Your task to perform on an android device: manage bookmarks in the chrome app Image 0: 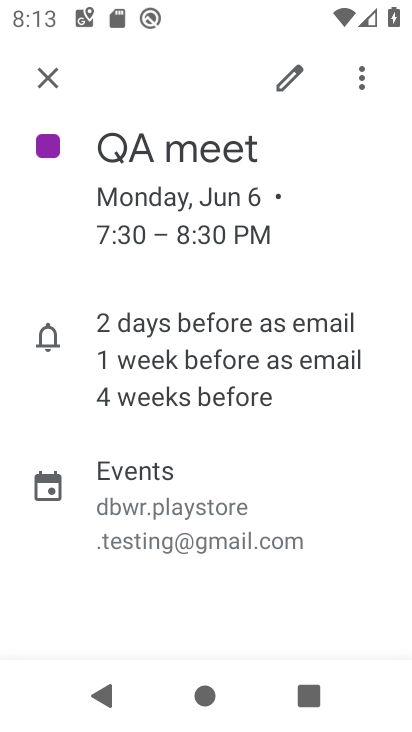
Step 0: press home button
Your task to perform on an android device: manage bookmarks in the chrome app Image 1: 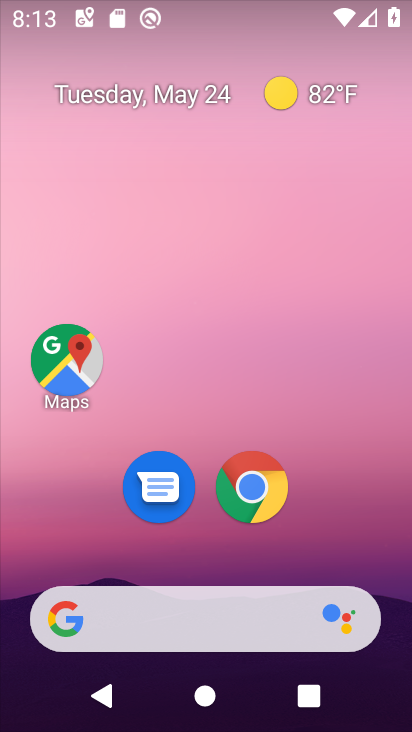
Step 1: click (250, 491)
Your task to perform on an android device: manage bookmarks in the chrome app Image 2: 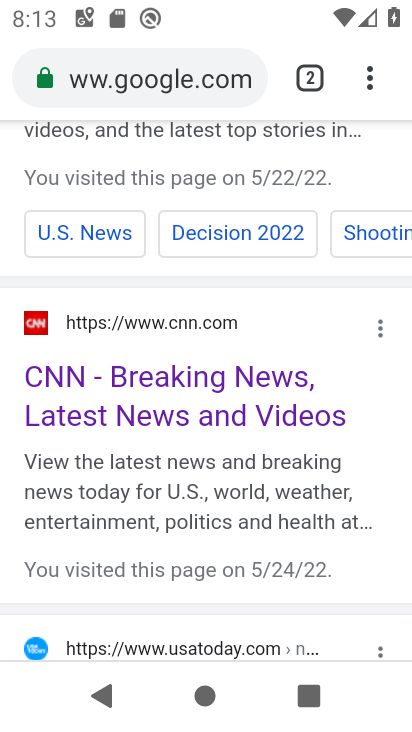
Step 2: drag from (372, 72) to (127, 294)
Your task to perform on an android device: manage bookmarks in the chrome app Image 3: 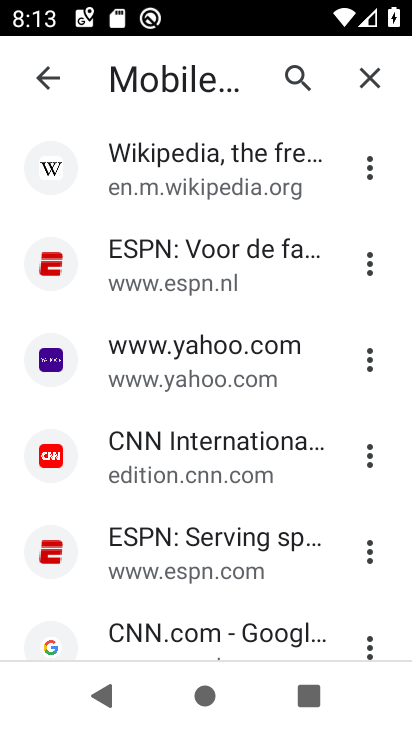
Step 3: drag from (198, 434) to (269, 207)
Your task to perform on an android device: manage bookmarks in the chrome app Image 4: 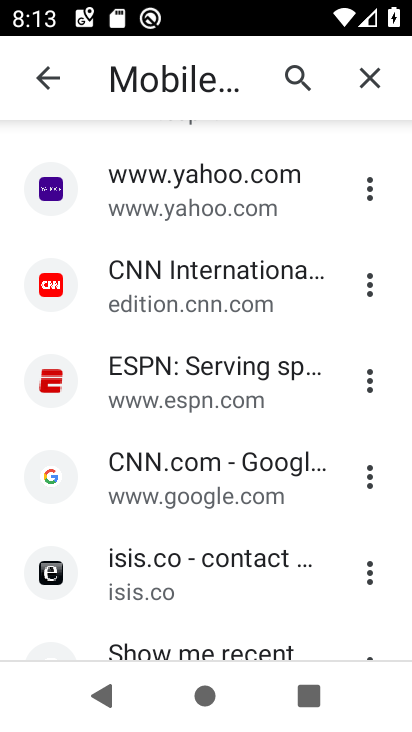
Step 4: click (370, 185)
Your task to perform on an android device: manage bookmarks in the chrome app Image 5: 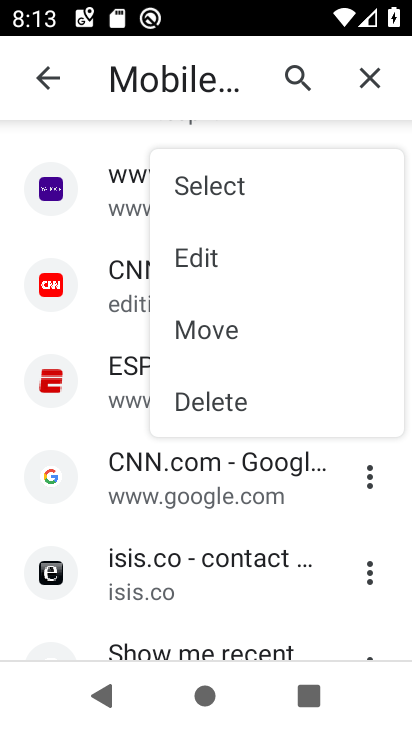
Step 5: click (205, 390)
Your task to perform on an android device: manage bookmarks in the chrome app Image 6: 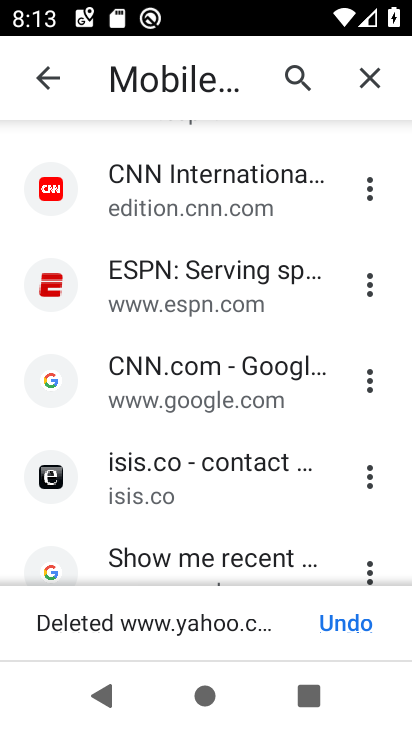
Step 6: task complete